Your task to perform on an android device: create a new album in the google photos Image 0: 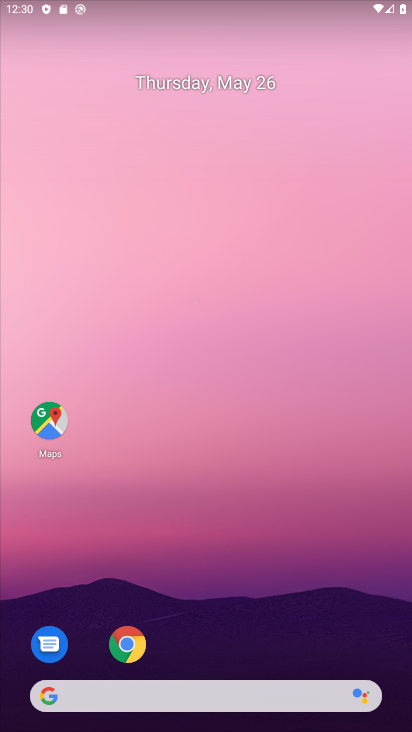
Step 0: press home button
Your task to perform on an android device: create a new album in the google photos Image 1: 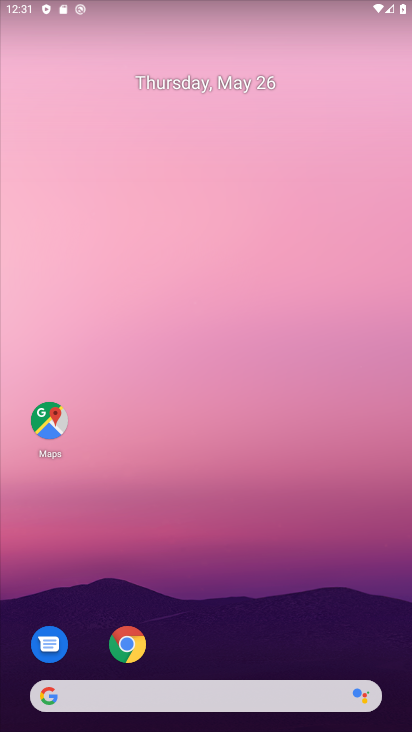
Step 1: drag from (26, 714) to (268, 24)
Your task to perform on an android device: create a new album in the google photos Image 2: 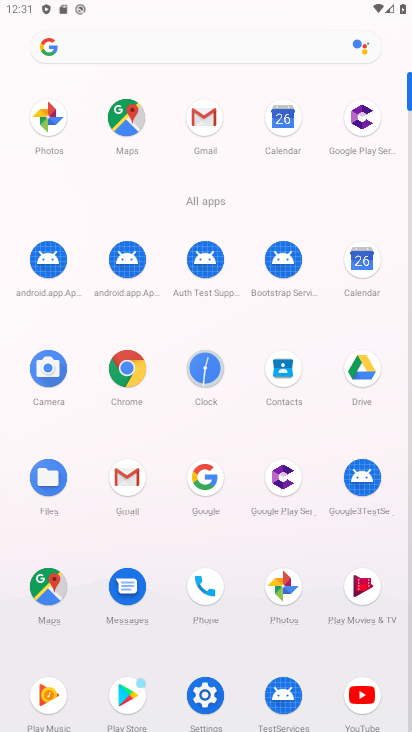
Step 2: click (282, 585)
Your task to perform on an android device: create a new album in the google photos Image 3: 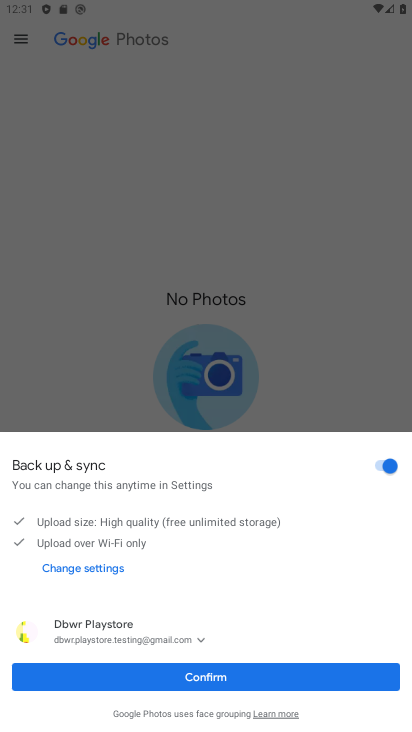
Step 3: click (232, 681)
Your task to perform on an android device: create a new album in the google photos Image 4: 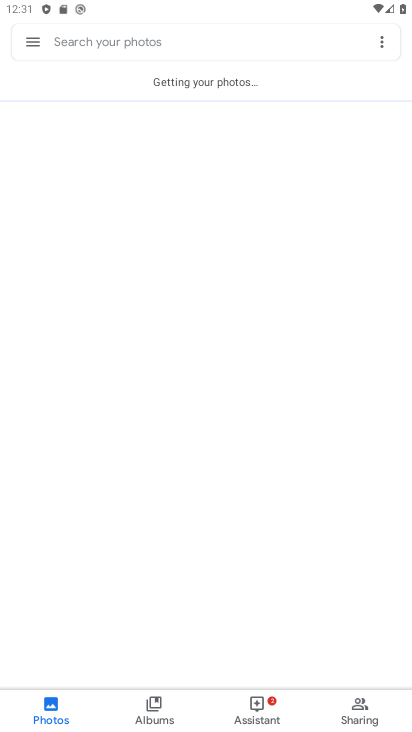
Step 4: click (390, 45)
Your task to perform on an android device: create a new album in the google photos Image 5: 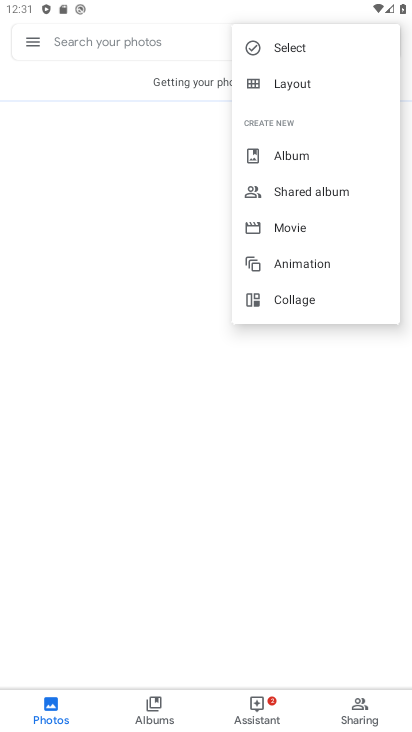
Step 5: click (290, 155)
Your task to perform on an android device: create a new album in the google photos Image 6: 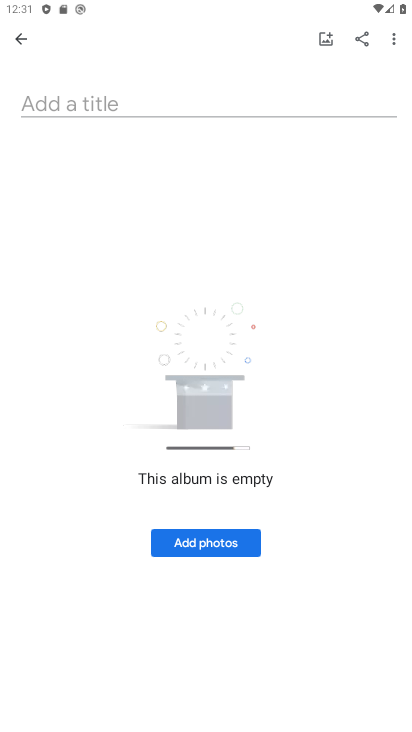
Step 6: click (158, 82)
Your task to perform on an android device: create a new album in the google photos Image 7: 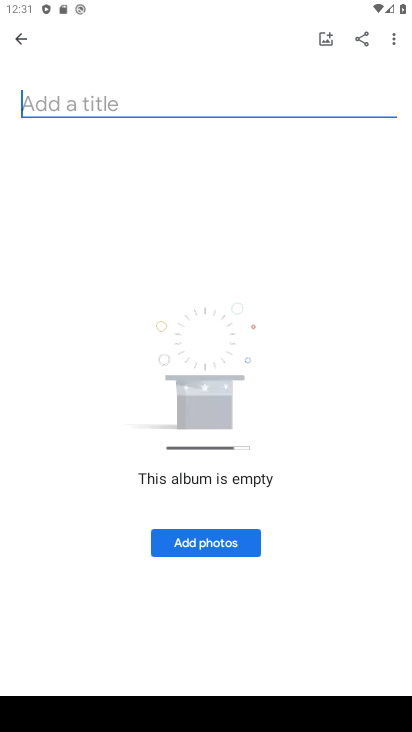
Step 7: type "bvgfds"
Your task to perform on an android device: create a new album in the google photos Image 8: 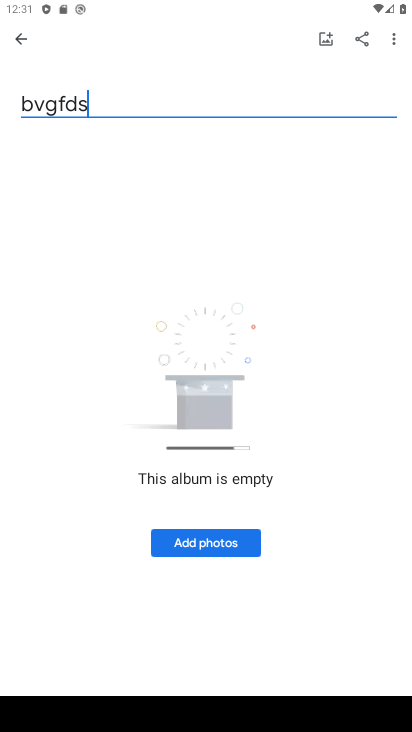
Step 8: click (201, 535)
Your task to perform on an android device: create a new album in the google photos Image 9: 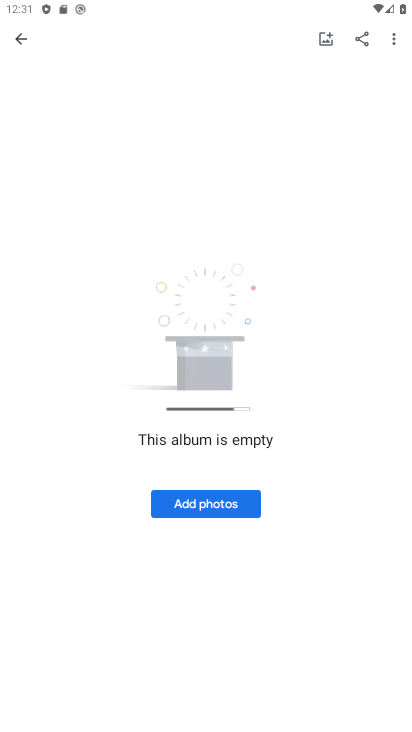
Step 9: click (196, 500)
Your task to perform on an android device: create a new album in the google photos Image 10: 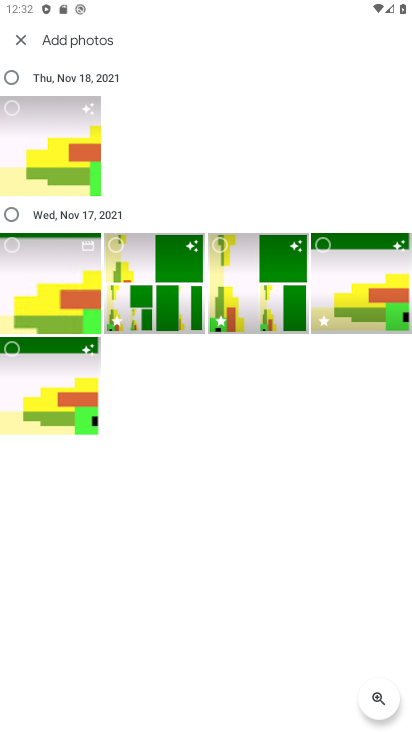
Step 10: click (335, 281)
Your task to perform on an android device: create a new album in the google photos Image 11: 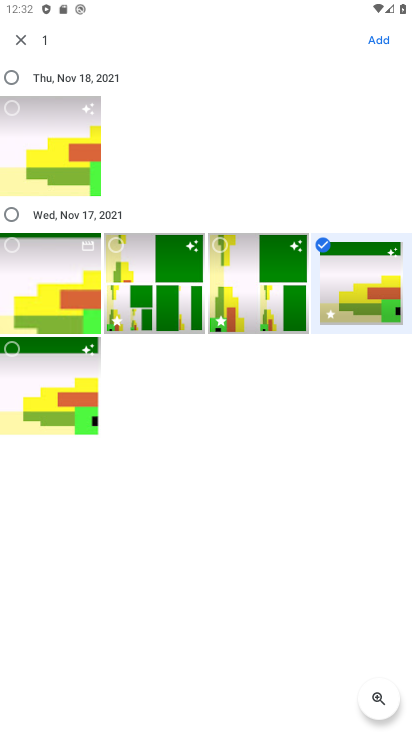
Step 11: click (385, 38)
Your task to perform on an android device: create a new album in the google photos Image 12: 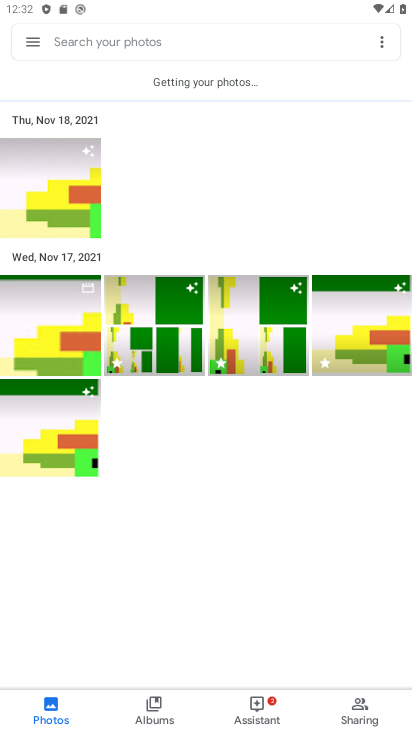
Step 12: task complete